Your task to perform on an android device: toggle location history Image 0: 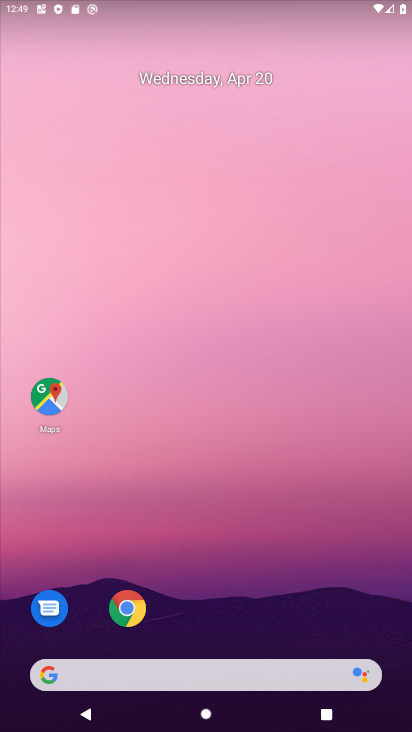
Step 0: click (41, 394)
Your task to perform on an android device: toggle location history Image 1: 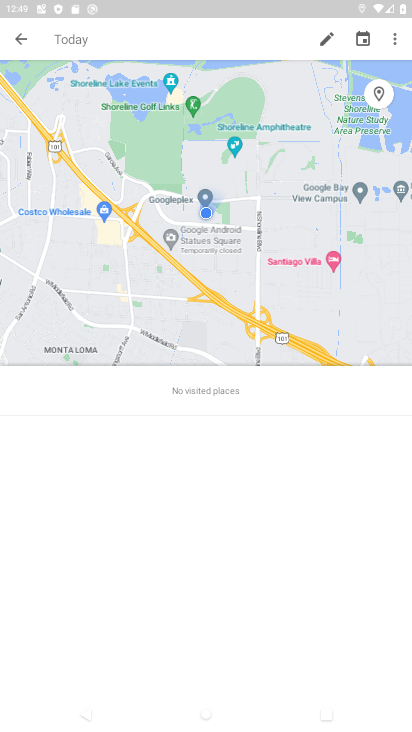
Step 1: click (392, 46)
Your task to perform on an android device: toggle location history Image 2: 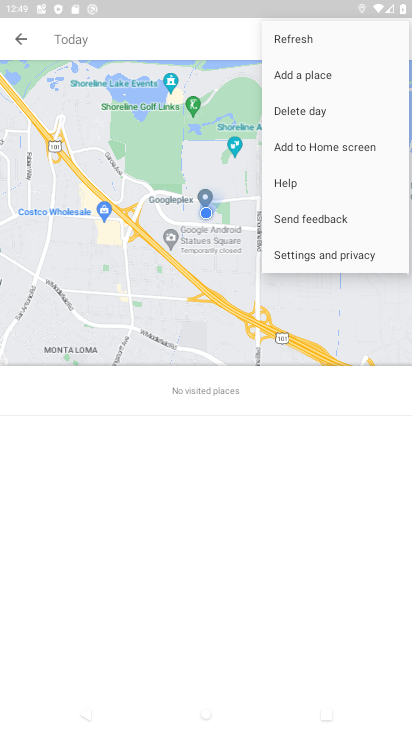
Step 2: click (349, 253)
Your task to perform on an android device: toggle location history Image 3: 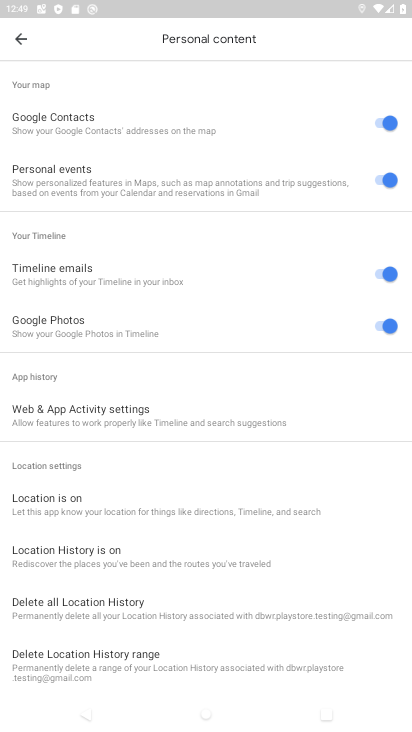
Step 3: click (273, 565)
Your task to perform on an android device: toggle location history Image 4: 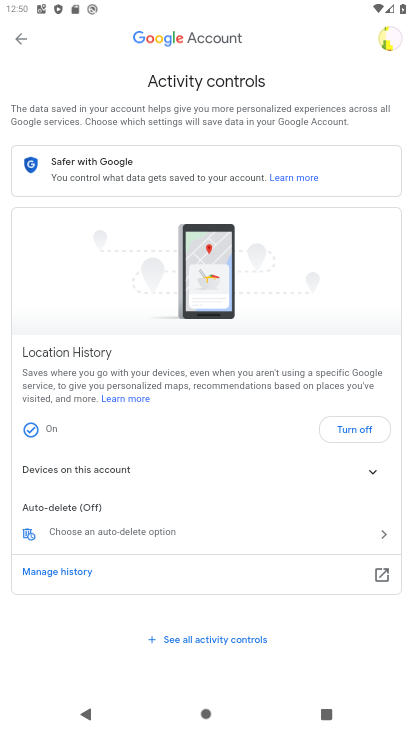
Step 4: click (353, 424)
Your task to perform on an android device: toggle location history Image 5: 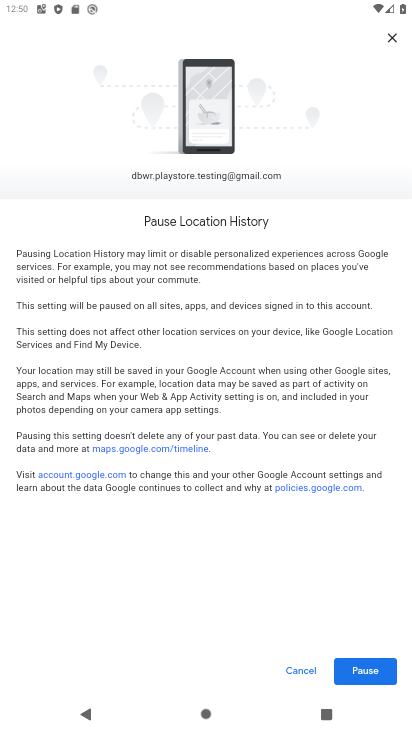
Step 5: click (366, 665)
Your task to perform on an android device: toggle location history Image 6: 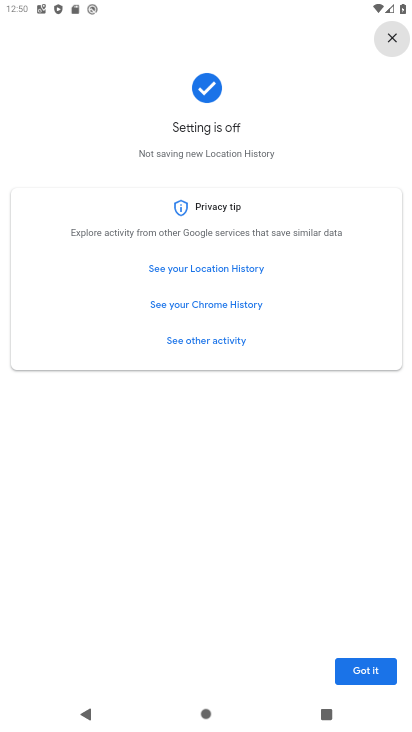
Step 6: click (366, 665)
Your task to perform on an android device: toggle location history Image 7: 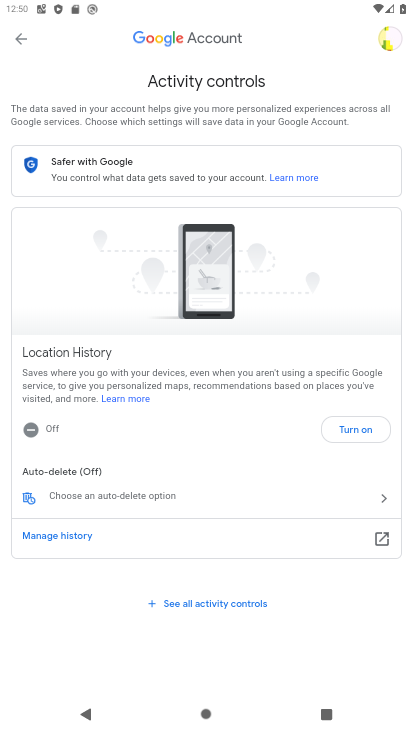
Step 7: task complete